Your task to perform on an android device: open app "Adobe Acrobat Reader: Edit PDF" (install if not already installed) and enter user name: "arthritis@inbox.com" and password: "scythes" Image 0: 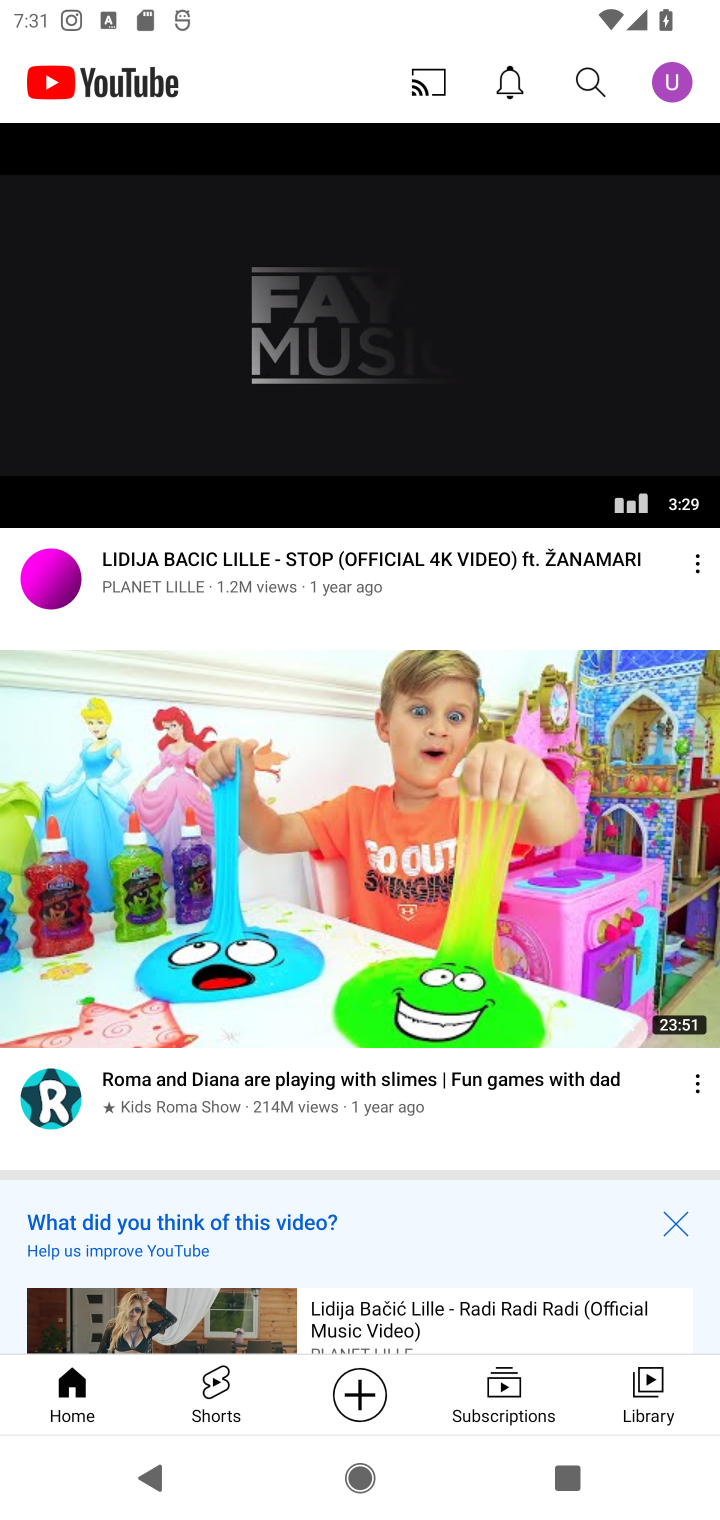
Step 0: press home button
Your task to perform on an android device: open app "Adobe Acrobat Reader: Edit PDF" (install if not already installed) and enter user name: "arthritis@inbox.com" and password: "scythes" Image 1: 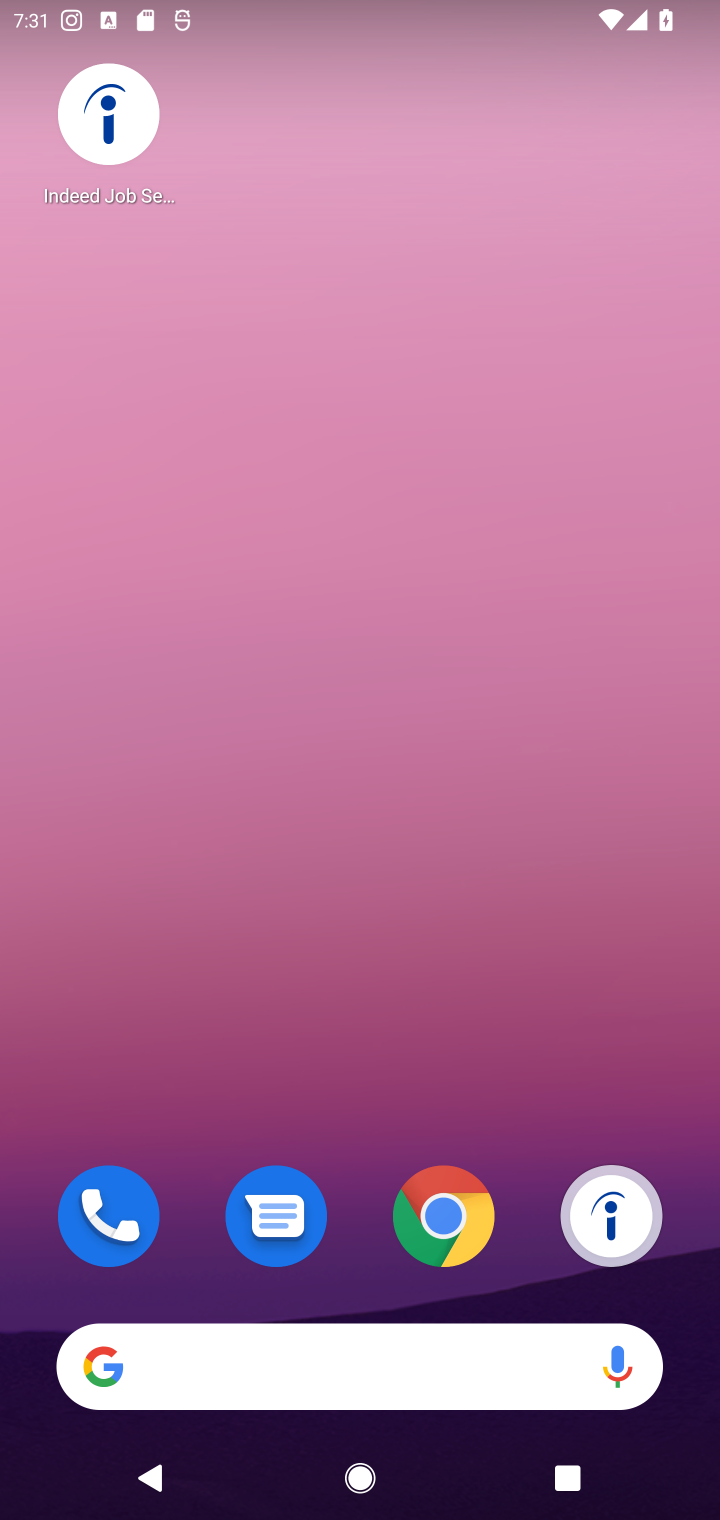
Step 1: drag from (382, 1059) to (368, 322)
Your task to perform on an android device: open app "Adobe Acrobat Reader: Edit PDF" (install if not already installed) and enter user name: "arthritis@inbox.com" and password: "scythes" Image 2: 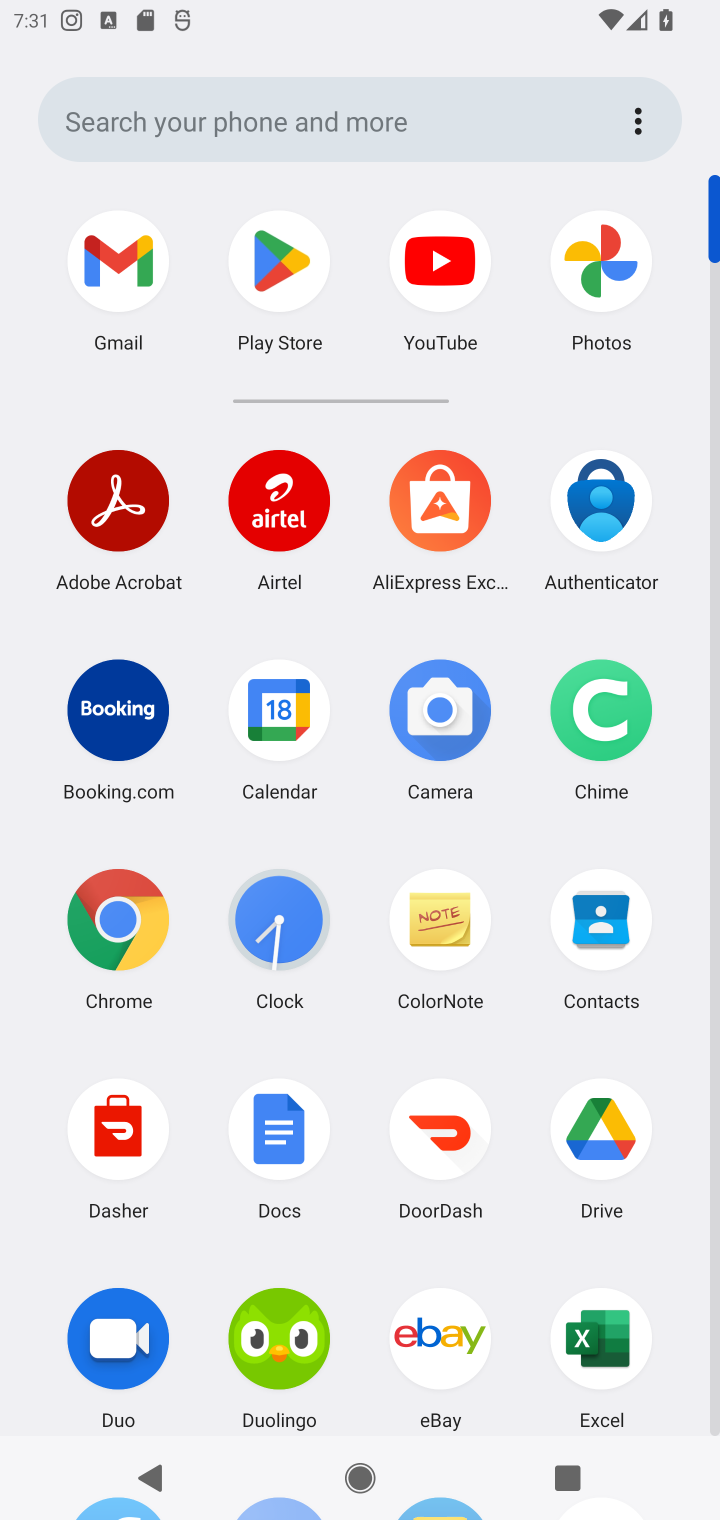
Step 2: click (319, 258)
Your task to perform on an android device: open app "Adobe Acrobat Reader: Edit PDF" (install if not already installed) and enter user name: "arthritis@inbox.com" and password: "scythes" Image 3: 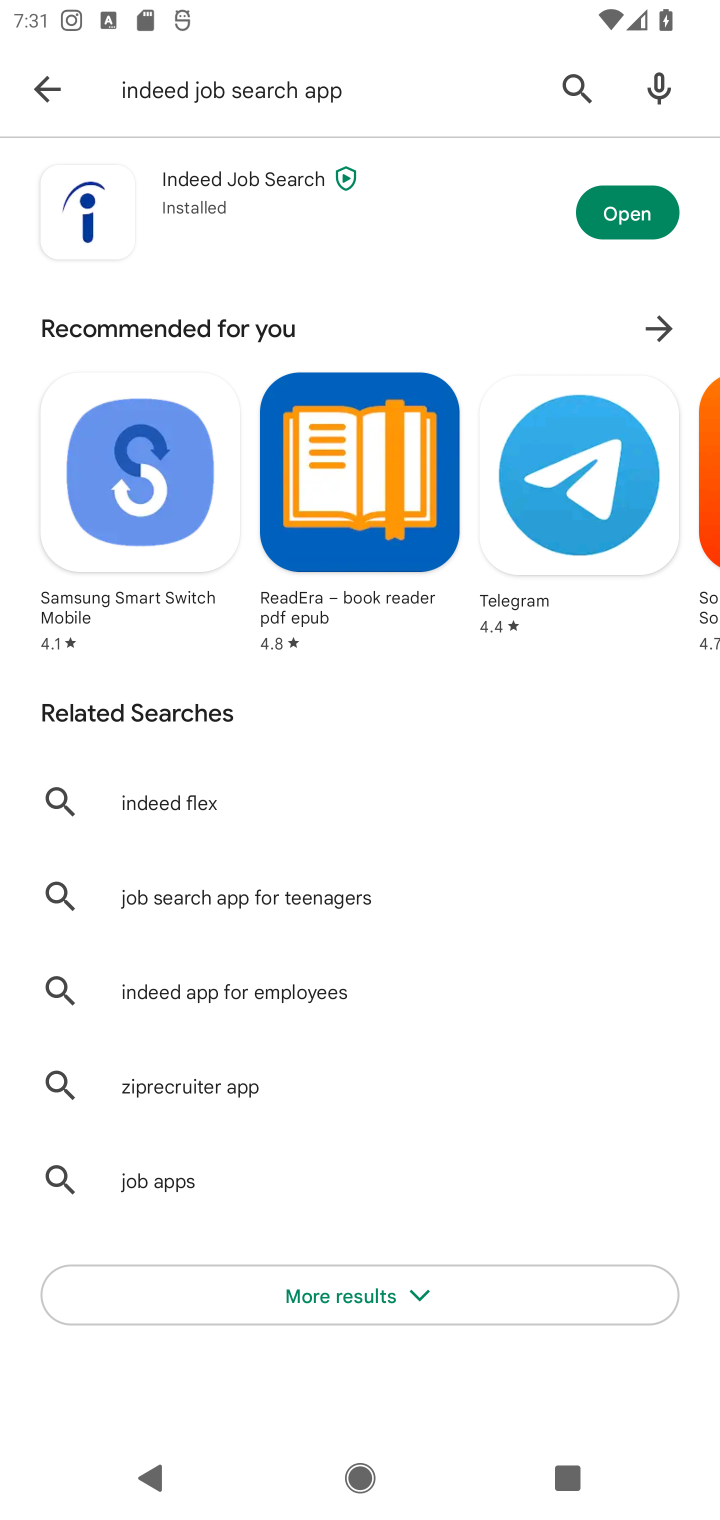
Step 3: click (569, 74)
Your task to perform on an android device: open app "Adobe Acrobat Reader: Edit PDF" (install if not already installed) and enter user name: "arthritis@inbox.com" and password: "scythes" Image 4: 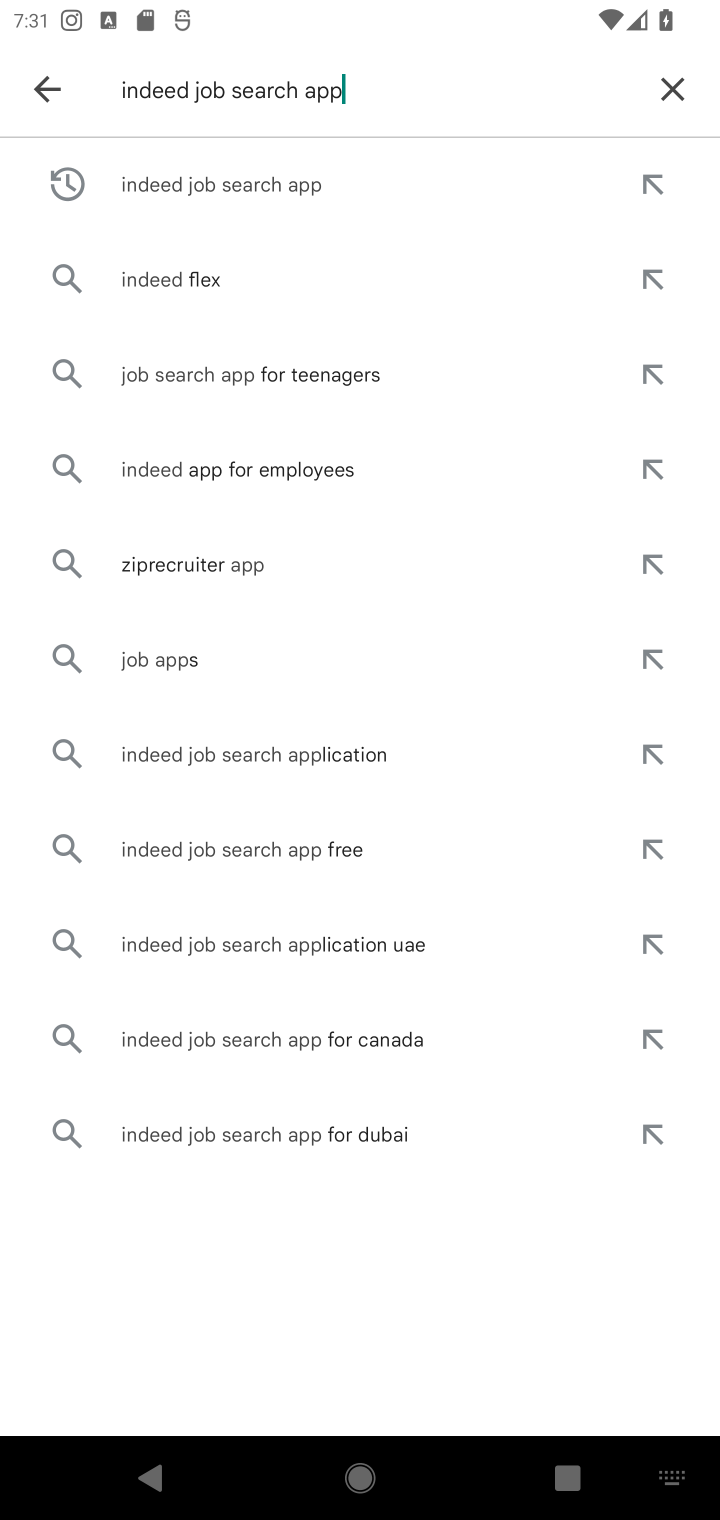
Step 4: click (664, 91)
Your task to perform on an android device: open app "Adobe Acrobat Reader: Edit PDF" (install if not already installed) and enter user name: "arthritis@inbox.com" and password: "scythes" Image 5: 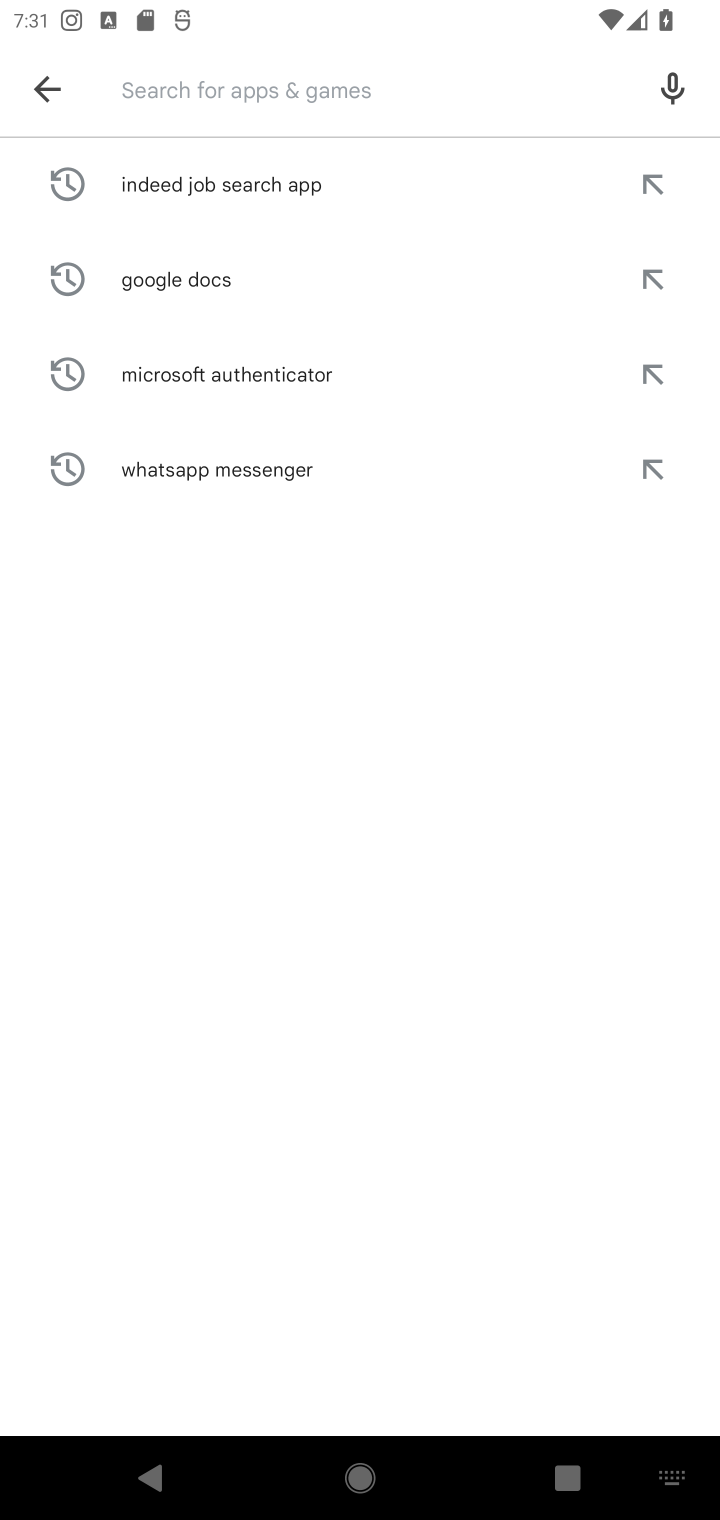
Step 5: type "Adobe Acrobat Reader: Edit PDF"
Your task to perform on an android device: open app "Adobe Acrobat Reader: Edit PDF" (install if not already installed) and enter user name: "arthritis@inbox.com" and password: "scythes" Image 6: 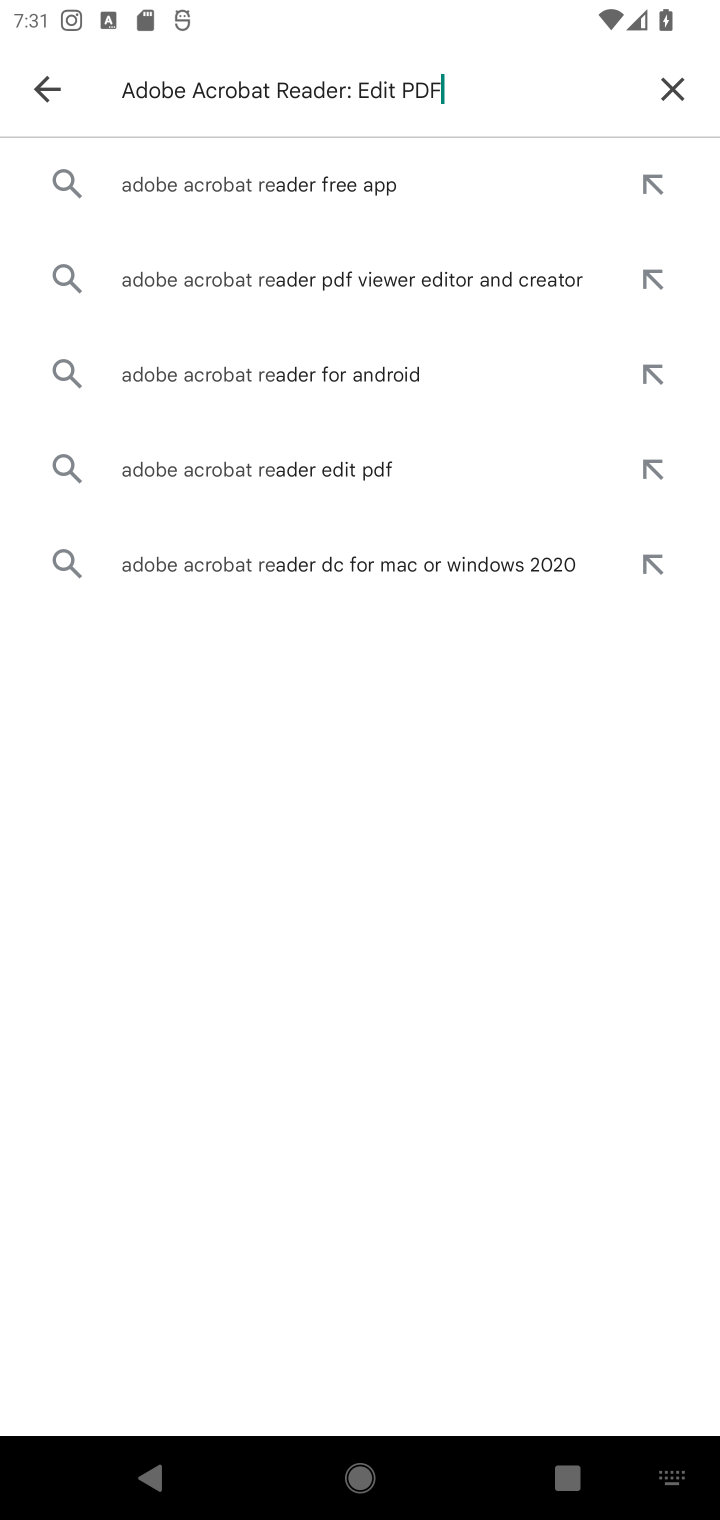
Step 6: type ""
Your task to perform on an android device: open app "Adobe Acrobat Reader: Edit PDF" (install if not already installed) and enter user name: "arthritis@inbox.com" and password: "scythes" Image 7: 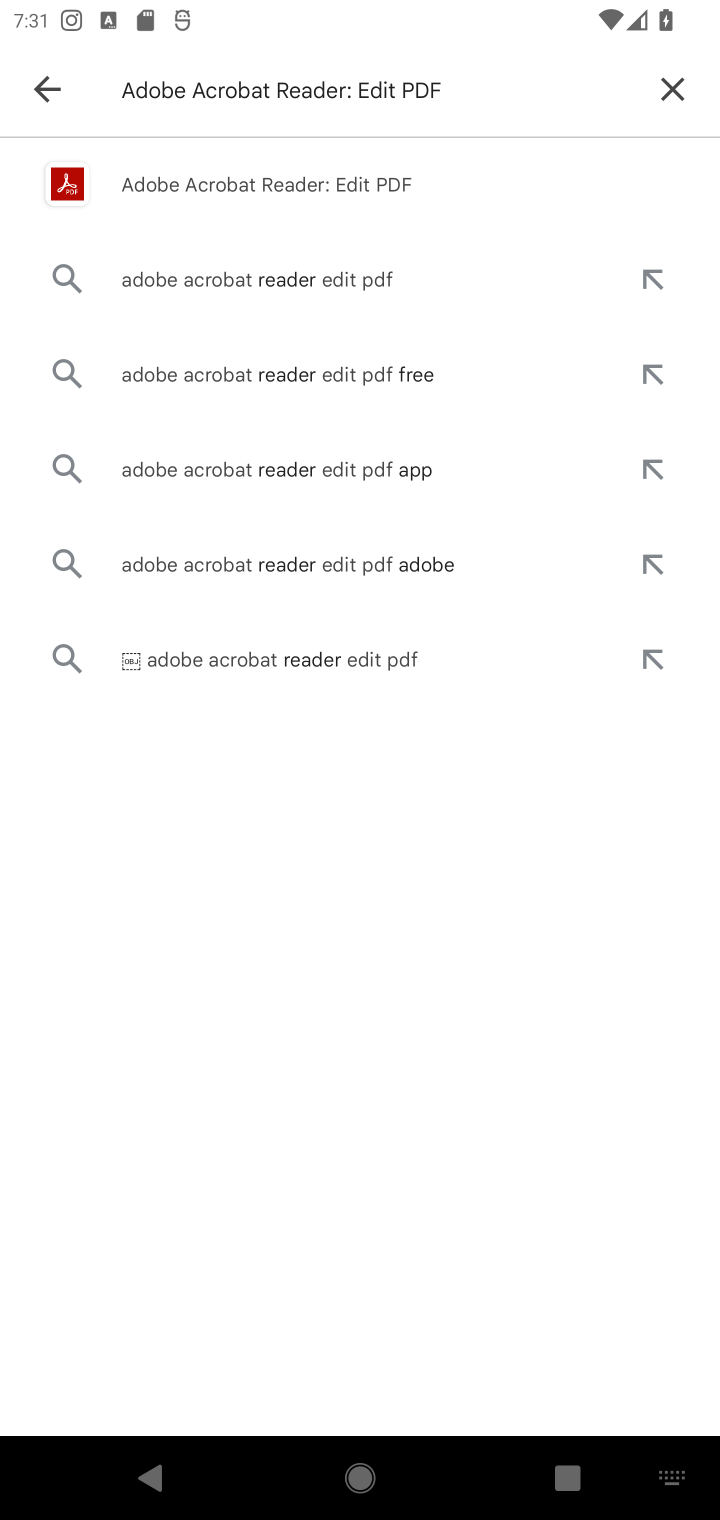
Step 7: click (301, 199)
Your task to perform on an android device: open app "Adobe Acrobat Reader: Edit PDF" (install if not already installed) and enter user name: "arthritis@inbox.com" and password: "scythes" Image 8: 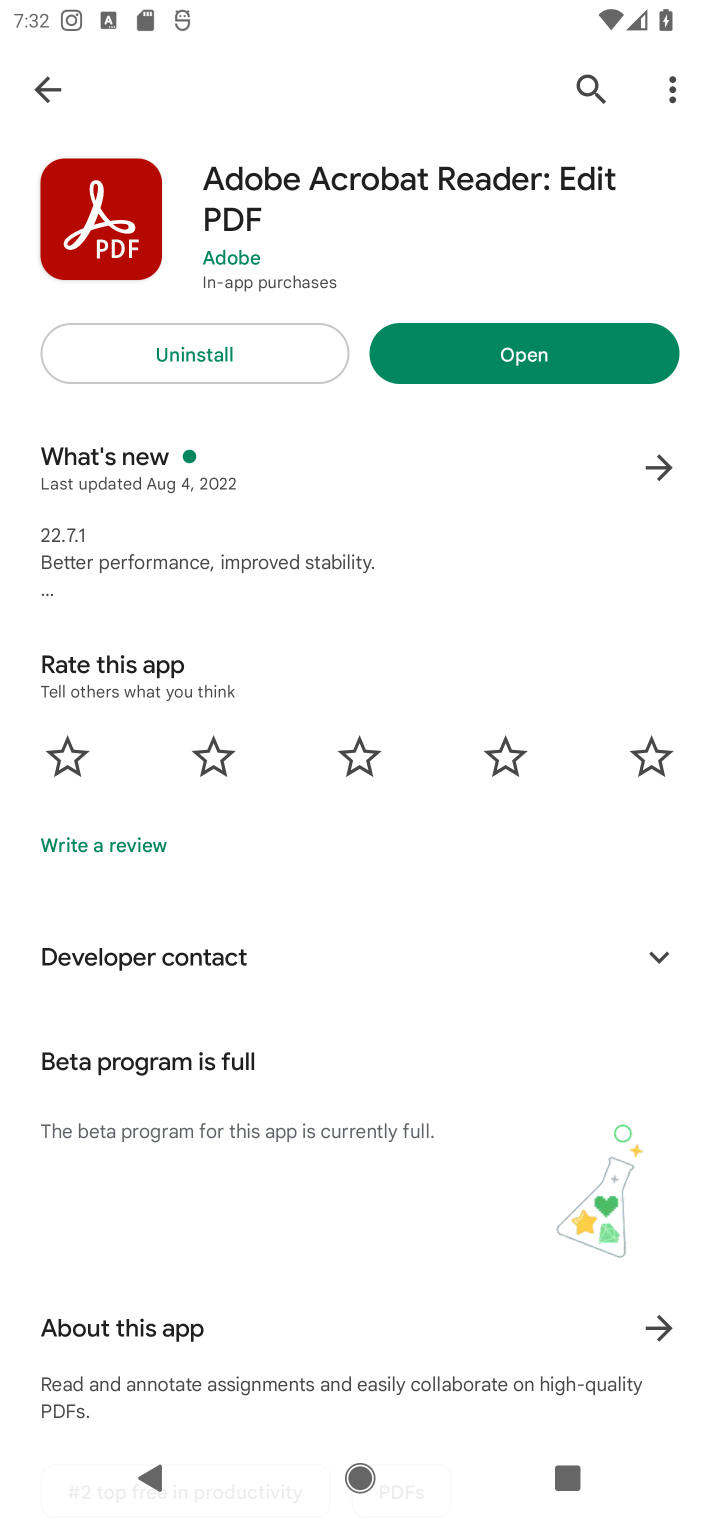
Step 8: click (492, 347)
Your task to perform on an android device: open app "Adobe Acrobat Reader: Edit PDF" (install if not already installed) and enter user name: "arthritis@inbox.com" and password: "scythes" Image 9: 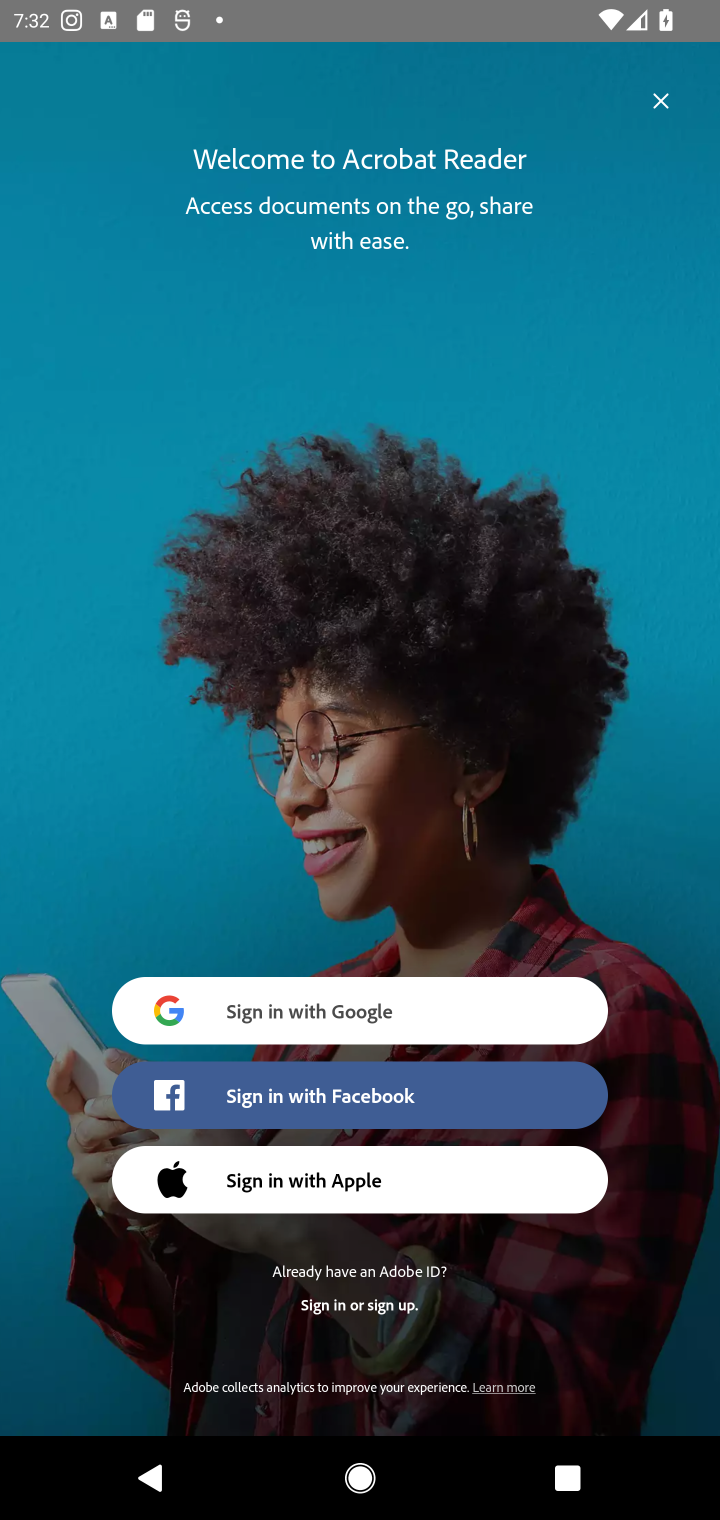
Step 9: task complete